Your task to perform on an android device: Set the phone to "Do not disturb". Image 0: 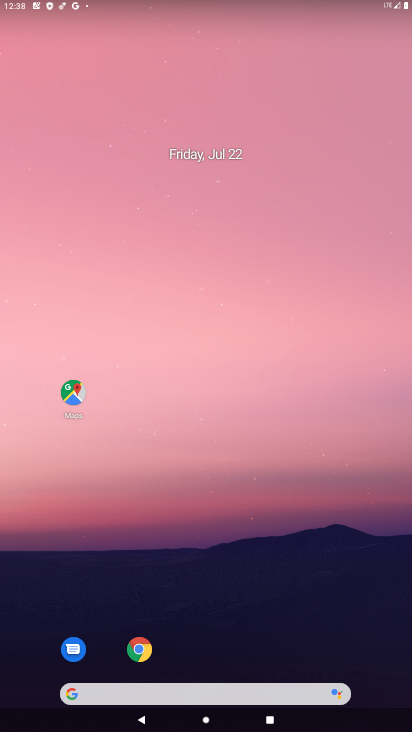
Step 0: drag from (226, 719) to (196, 365)
Your task to perform on an android device: Set the phone to "Do not disturb". Image 1: 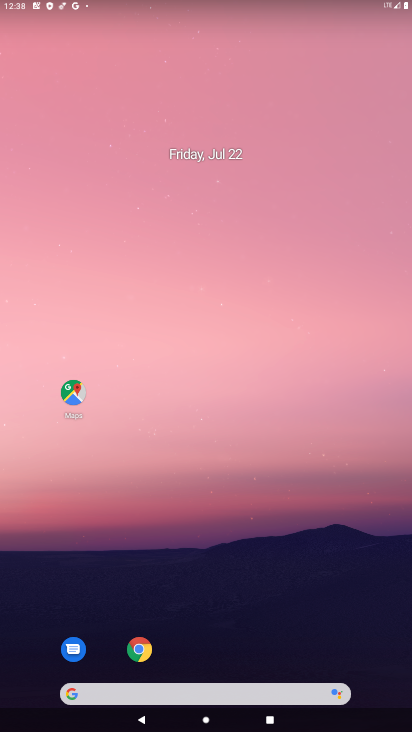
Step 1: drag from (227, 731) to (222, 666)
Your task to perform on an android device: Set the phone to "Do not disturb". Image 2: 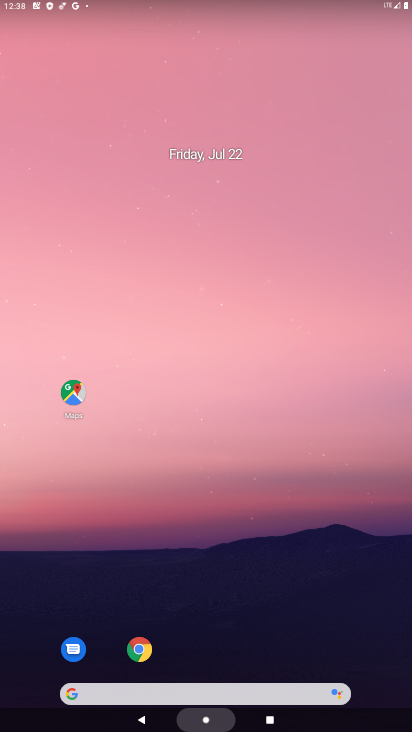
Step 2: drag from (209, 318) to (220, 189)
Your task to perform on an android device: Set the phone to "Do not disturb". Image 3: 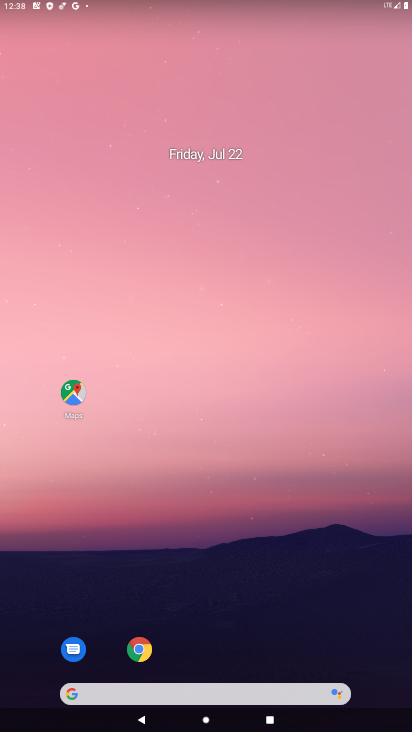
Step 3: drag from (228, 725) to (193, 51)
Your task to perform on an android device: Set the phone to "Do not disturb". Image 4: 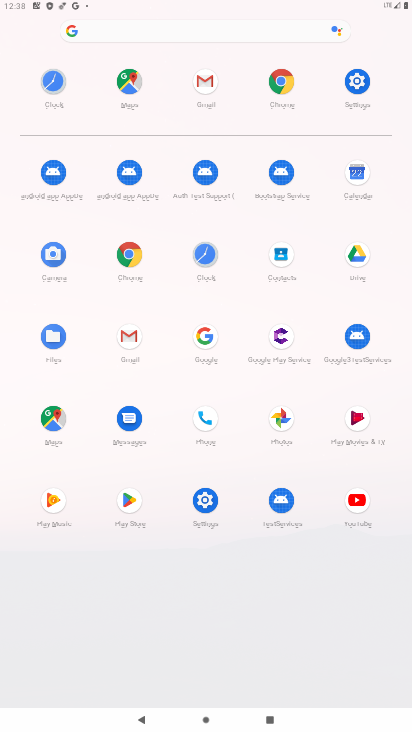
Step 4: click (351, 79)
Your task to perform on an android device: Set the phone to "Do not disturb". Image 5: 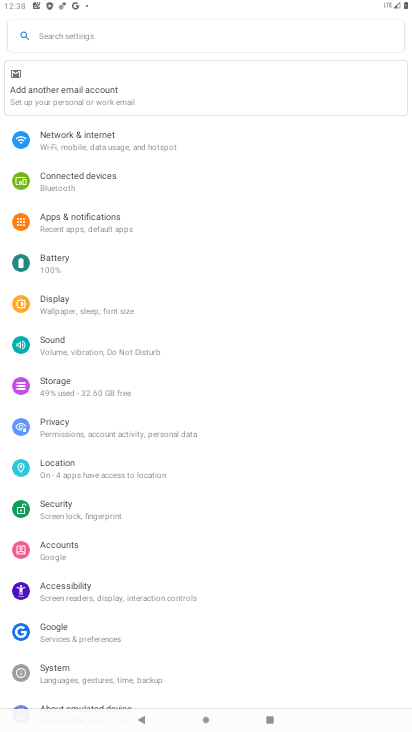
Step 5: click (111, 347)
Your task to perform on an android device: Set the phone to "Do not disturb". Image 6: 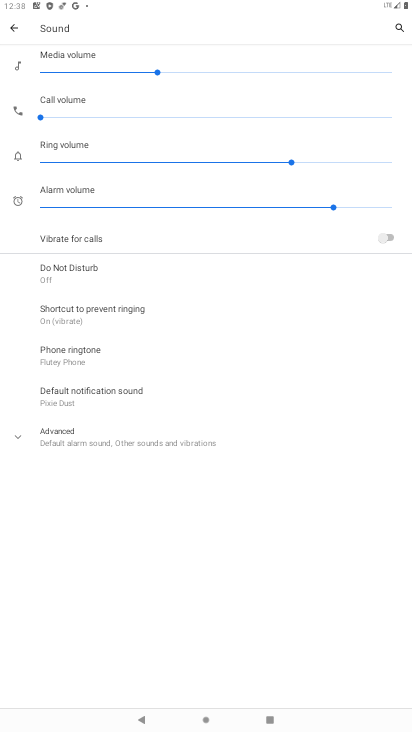
Step 6: click (56, 263)
Your task to perform on an android device: Set the phone to "Do not disturb". Image 7: 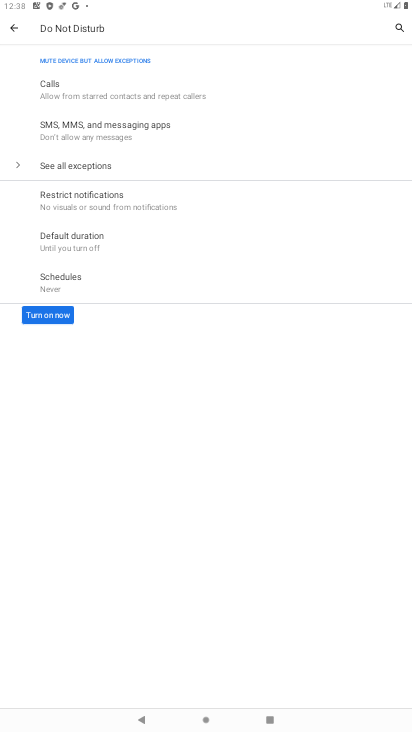
Step 7: click (53, 314)
Your task to perform on an android device: Set the phone to "Do not disturb". Image 8: 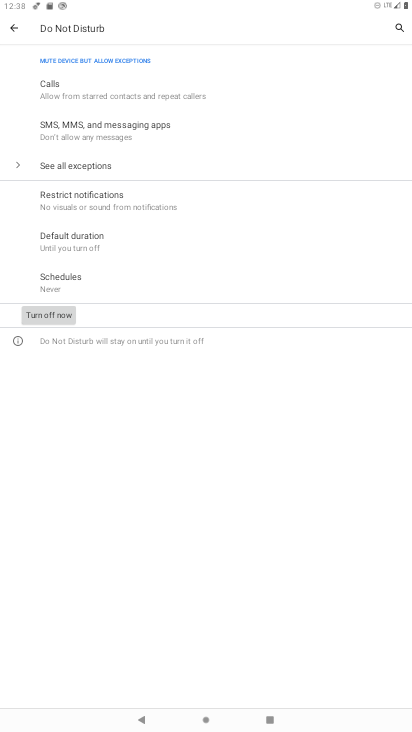
Step 8: task complete